Your task to perform on an android device: allow notifications from all sites in the chrome app Image 0: 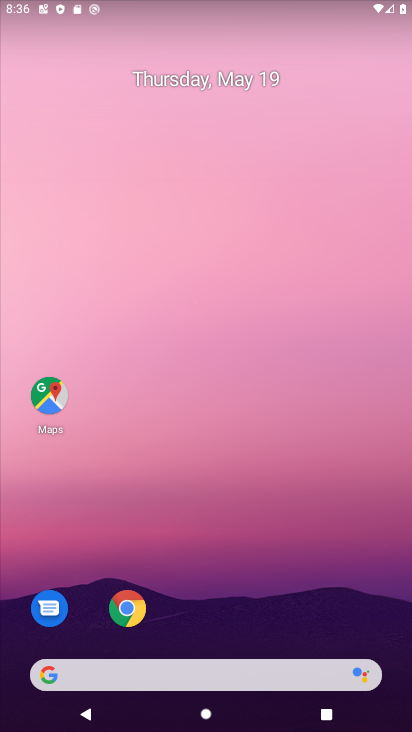
Step 0: drag from (175, 496) to (8, 21)
Your task to perform on an android device: allow notifications from all sites in the chrome app Image 1: 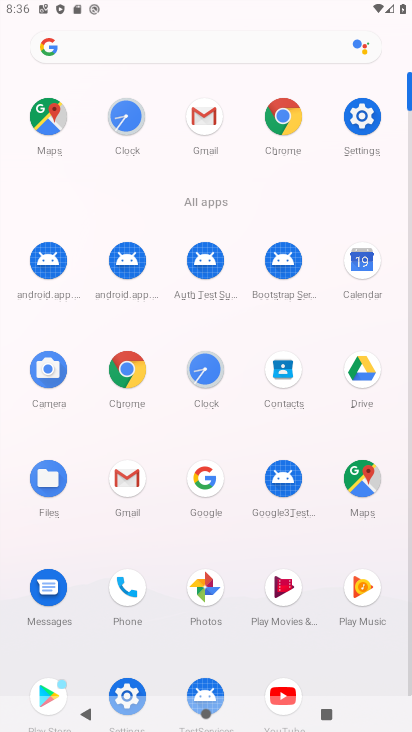
Step 1: click (279, 150)
Your task to perform on an android device: allow notifications from all sites in the chrome app Image 2: 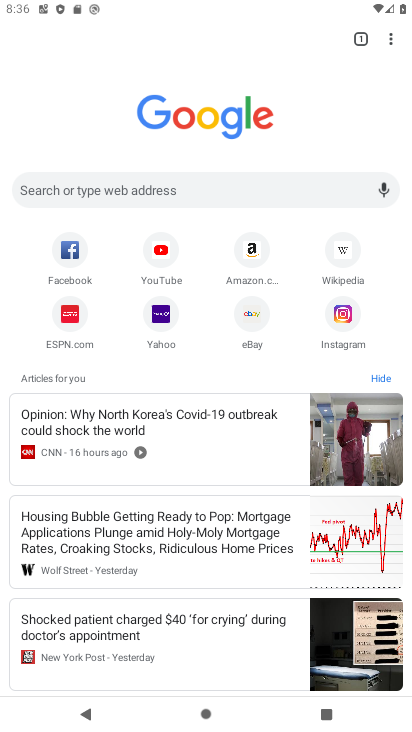
Step 2: click (387, 41)
Your task to perform on an android device: allow notifications from all sites in the chrome app Image 3: 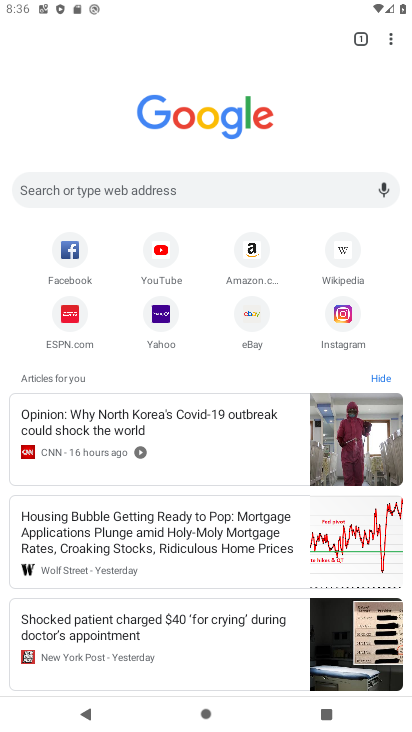
Step 3: click (388, 43)
Your task to perform on an android device: allow notifications from all sites in the chrome app Image 4: 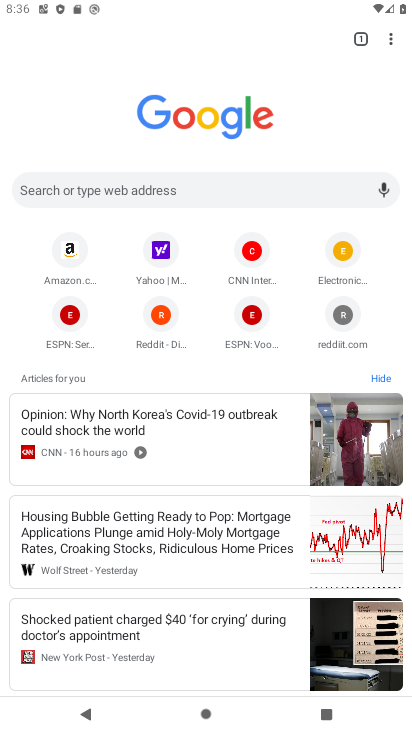
Step 4: click (391, 42)
Your task to perform on an android device: allow notifications from all sites in the chrome app Image 5: 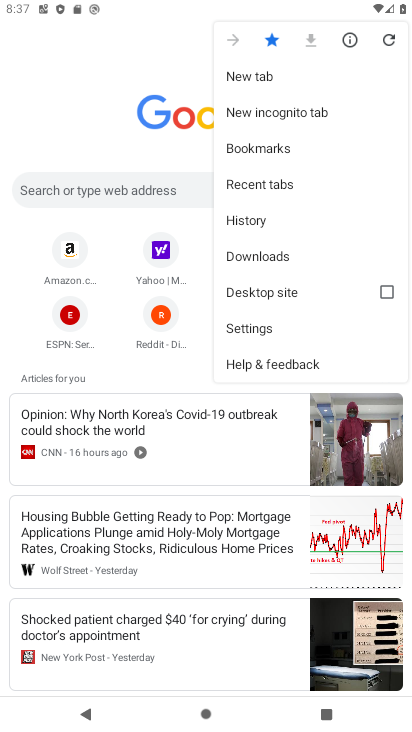
Step 5: click (260, 328)
Your task to perform on an android device: allow notifications from all sites in the chrome app Image 6: 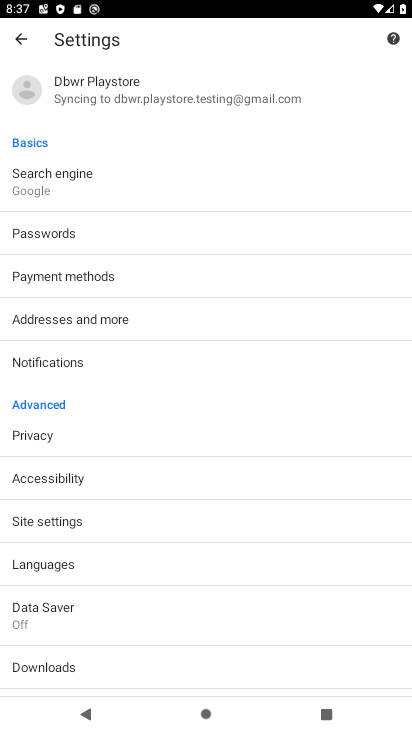
Step 6: click (35, 536)
Your task to perform on an android device: allow notifications from all sites in the chrome app Image 7: 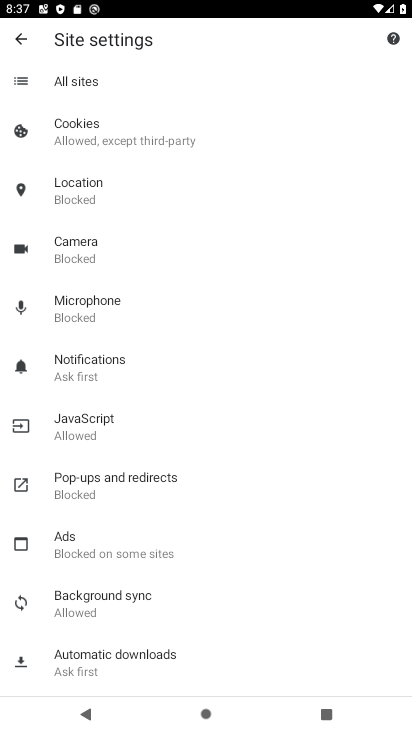
Step 7: click (62, 85)
Your task to perform on an android device: allow notifications from all sites in the chrome app Image 8: 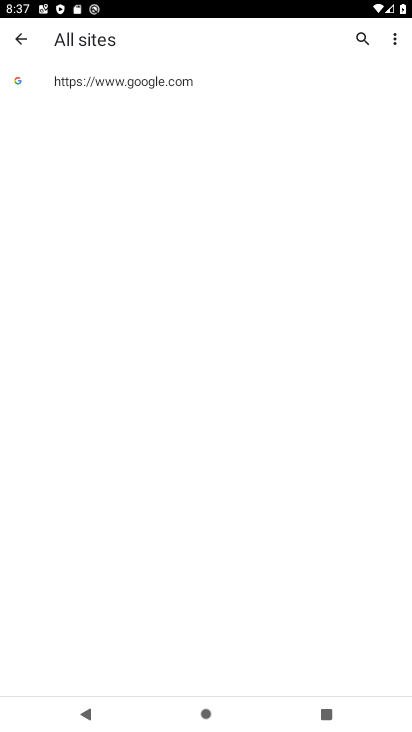
Step 8: click (62, 85)
Your task to perform on an android device: allow notifications from all sites in the chrome app Image 9: 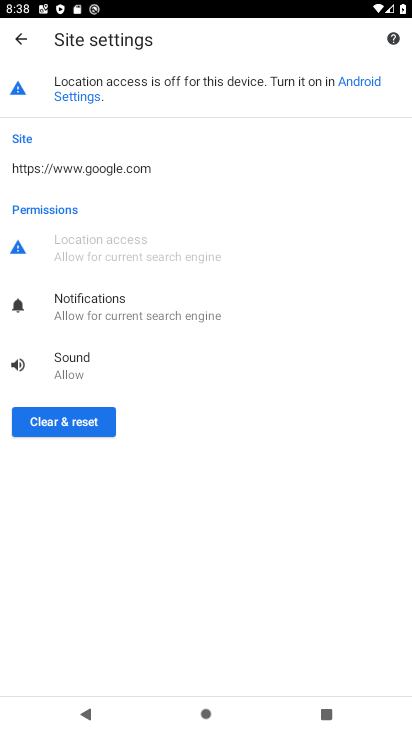
Step 9: click (106, 306)
Your task to perform on an android device: allow notifications from all sites in the chrome app Image 10: 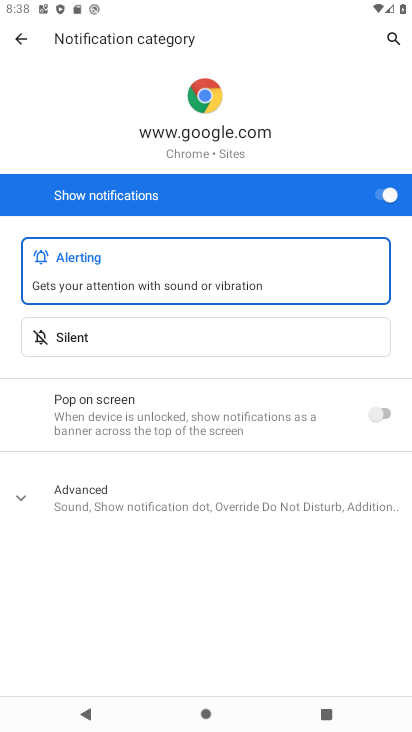
Step 10: task complete